Your task to perform on an android device: Open sound settings Image 0: 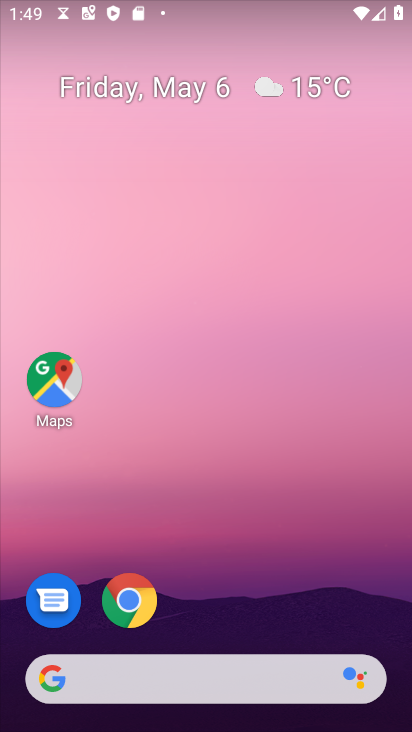
Step 0: drag from (335, 591) to (269, 26)
Your task to perform on an android device: Open sound settings Image 1: 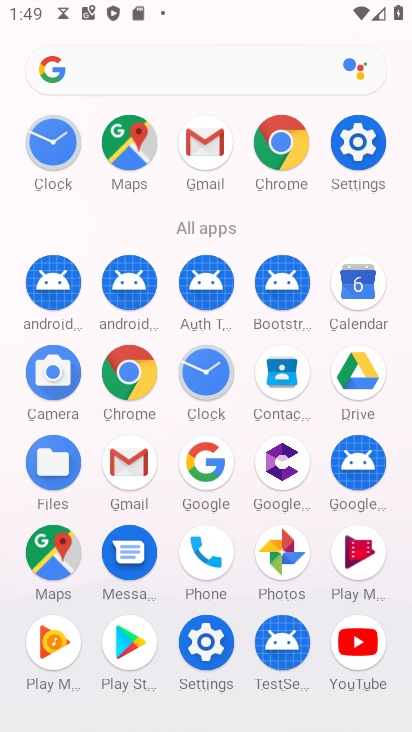
Step 1: click (202, 640)
Your task to perform on an android device: Open sound settings Image 2: 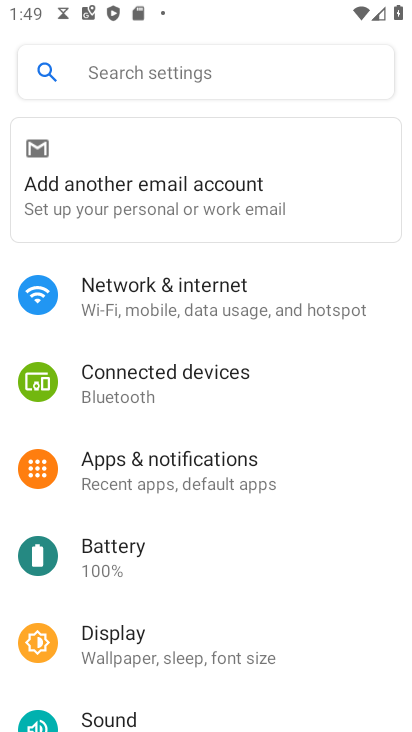
Step 2: click (148, 724)
Your task to perform on an android device: Open sound settings Image 3: 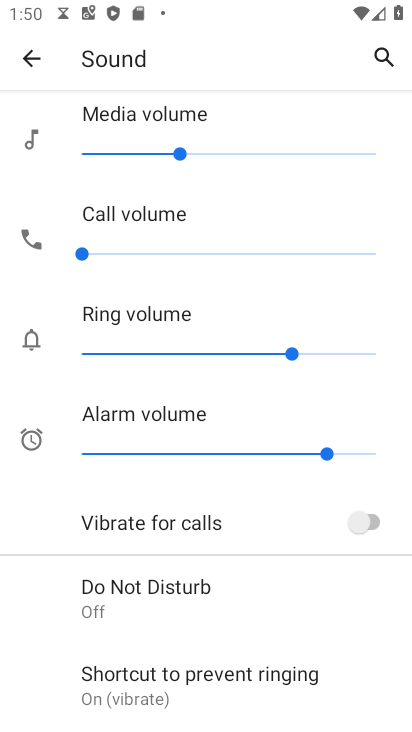
Step 3: task complete